Your task to perform on an android device: clear history in the chrome app Image 0: 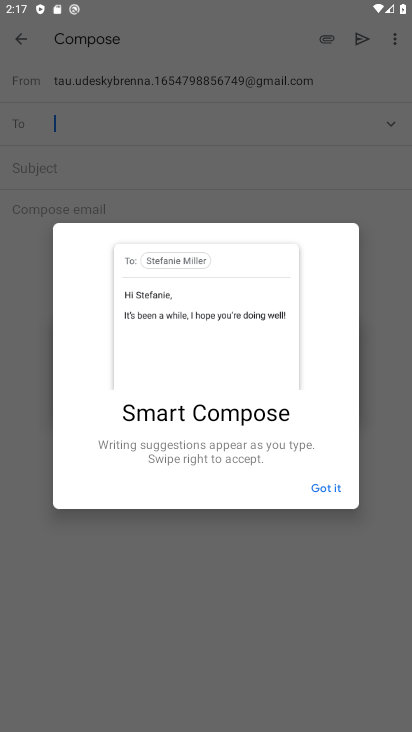
Step 0: press home button
Your task to perform on an android device: clear history in the chrome app Image 1: 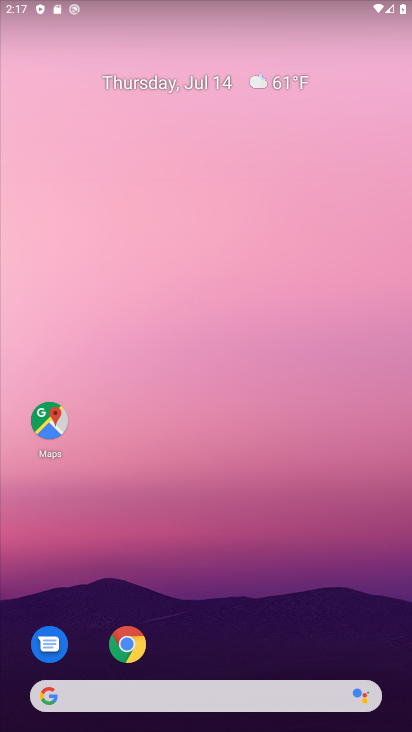
Step 1: click (136, 653)
Your task to perform on an android device: clear history in the chrome app Image 2: 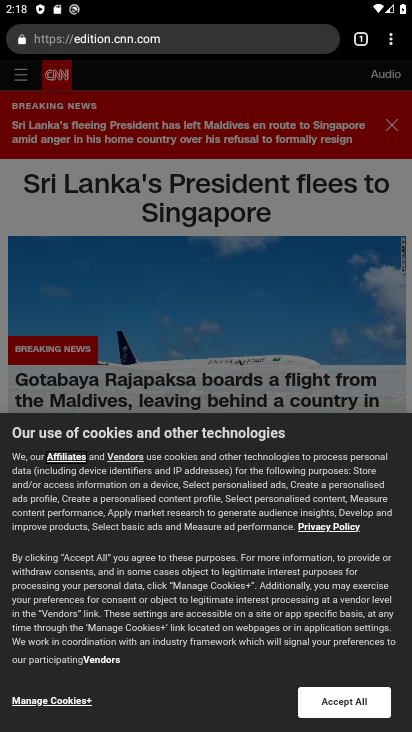
Step 2: click (388, 38)
Your task to perform on an android device: clear history in the chrome app Image 3: 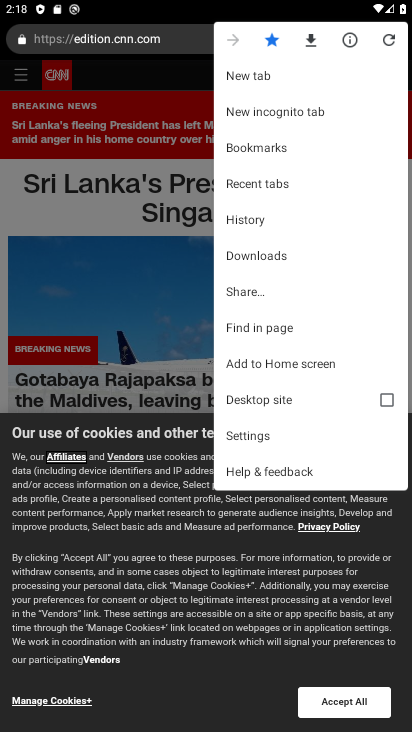
Step 3: click (268, 216)
Your task to perform on an android device: clear history in the chrome app Image 4: 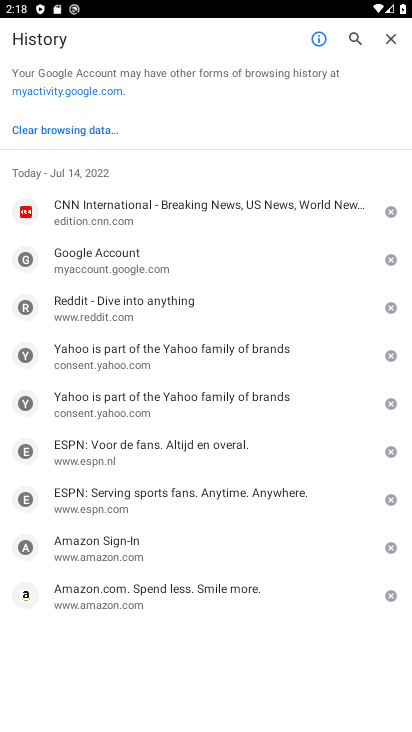
Step 4: click (90, 132)
Your task to perform on an android device: clear history in the chrome app Image 5: 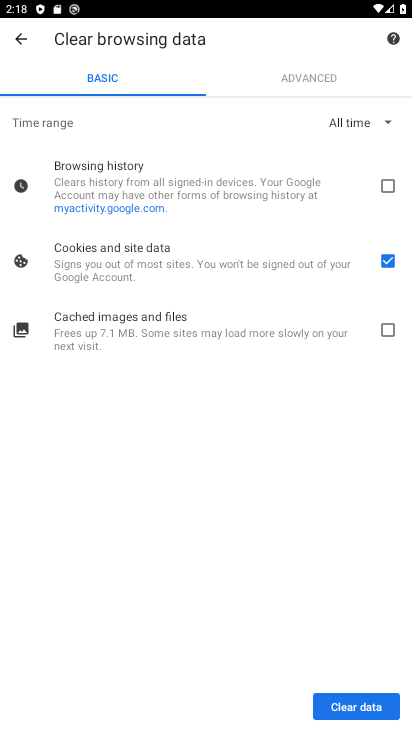
Step 5: click (384, 186)
Your task to perform on an android device: clear history in the chrome app Image 6: 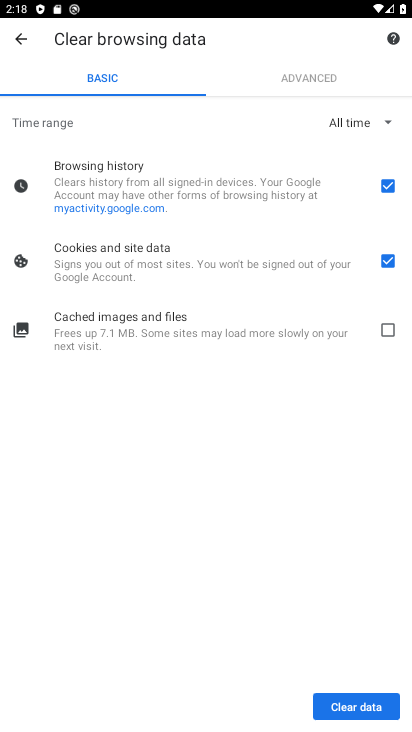
Step 6: click (386, 326)
Your task to perform on an android device: clear history in the chrome app Image 7: 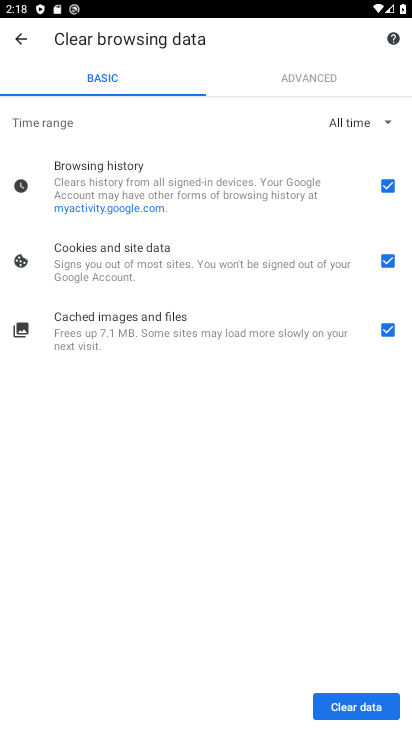
Step 7: click (385, 710)
Your task to perform on an android device: clear history in the chrome app Image 8: 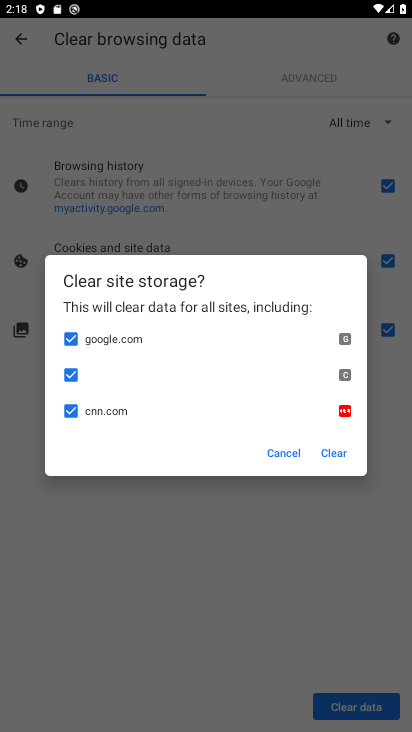
Step 8: click (332, 458)
Your task to perform on an android device: clear history in the chrome app Image 9: 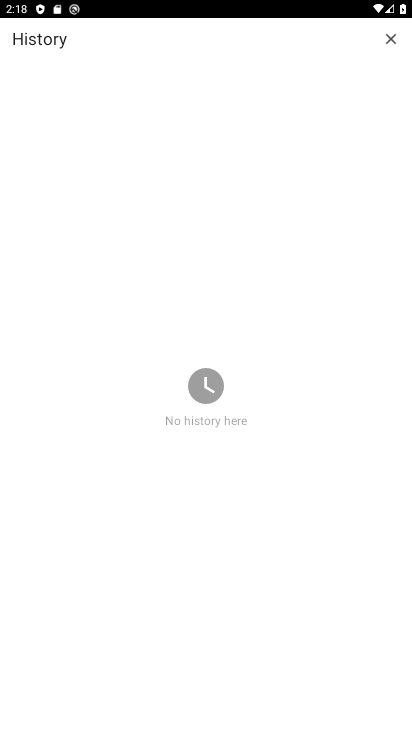
Step 9: task complete